Your task to perform on an android device: show emergency info Image 0: 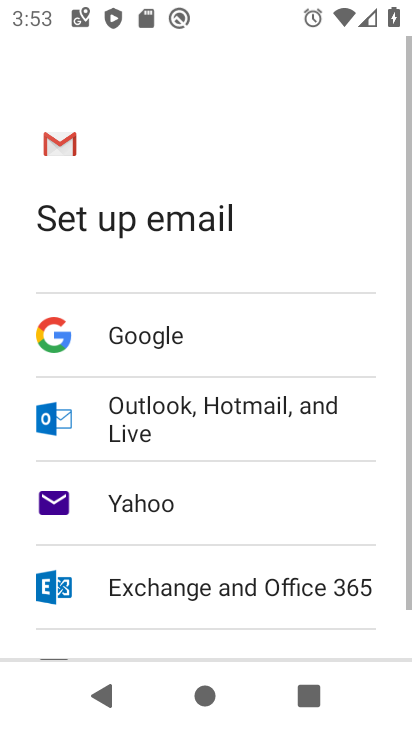
Step 0: press home button
Your task to perform on an android device: show emergency info Image 1: 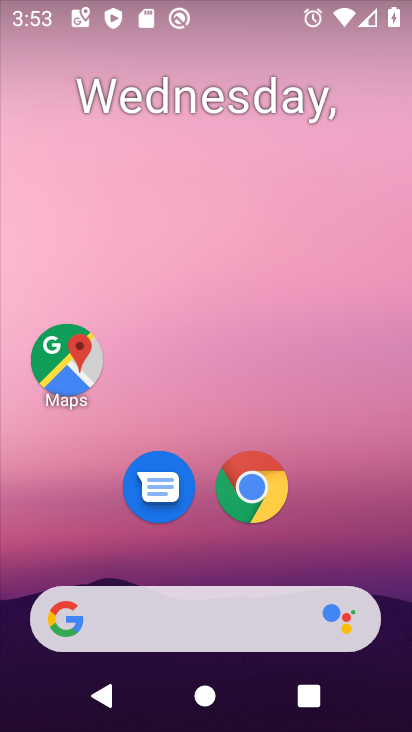
Step 1: drag from (381, 553) to (365, 233)
Your task to perform on an android device: show emergency info Image 2: 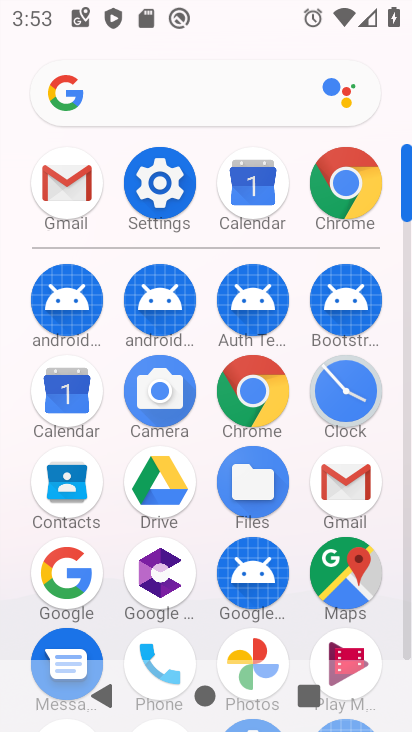
Step 2: click (174, 196)
Your task to perform on an android device: show emergency info Image 3: 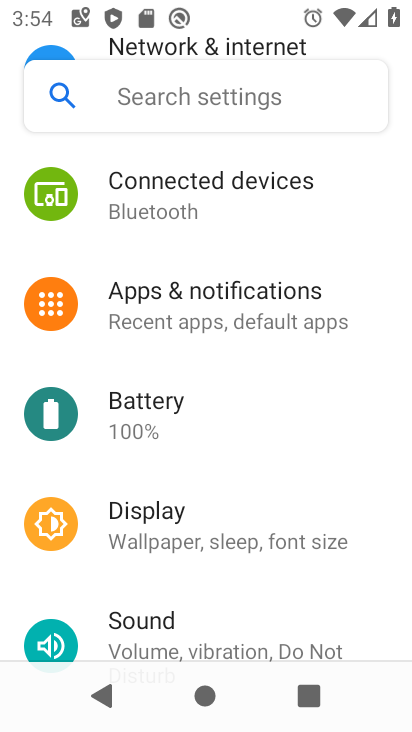
Step 3: drag from (349, 229) to (350, 312)
Your task to perform on an android device: show emergency info Image 4: 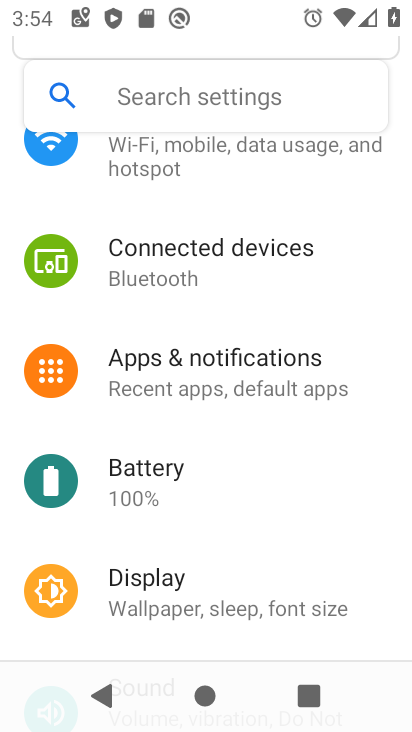
Step 4: drag from (361, 221) to (358, 301)
Your task to perform on an android device: show emergency info Image 5: 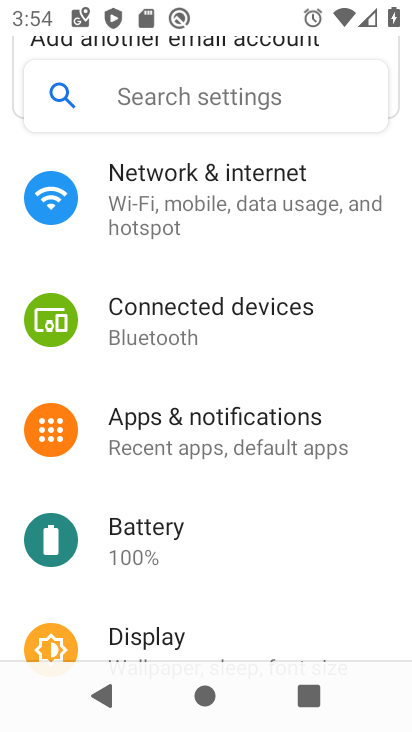
Step 5: drag from (353, 245) to (353, 318)
Your task to perform on an android device: show emergency info Image 6: 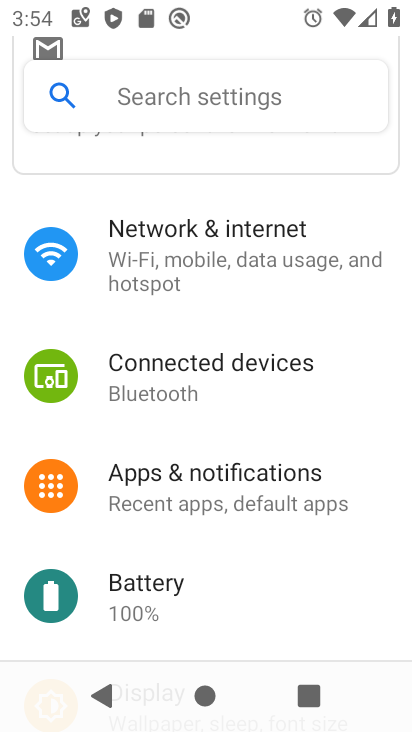
Step 6: drag from (347, 385) to (351, 320)
Your task to perform on an android device: show emergency info Image 7: 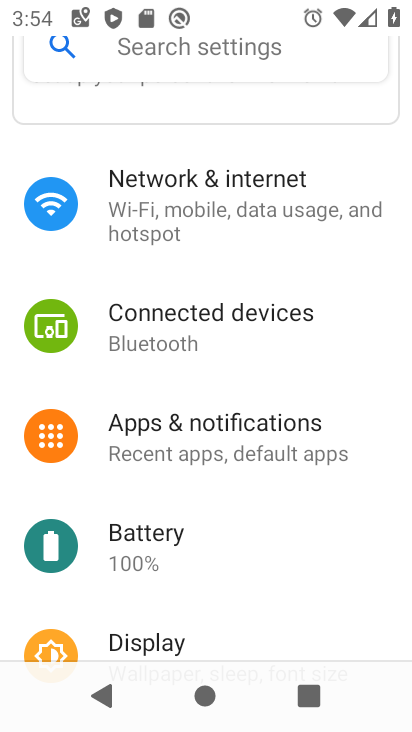
Step 7: drag from (352, 384) to (359, 307)
Your task to perform on an android device: show emergency info Image 8: 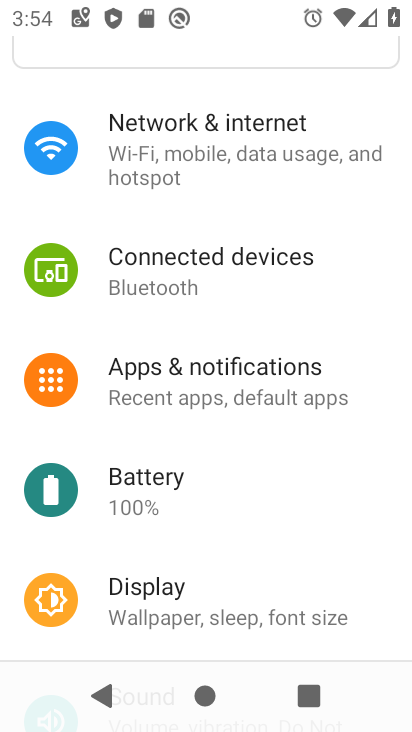
Step 8: drag from (361, 383) to (361, 293)
Your task to perform on an android device: show emergency info Image 9: 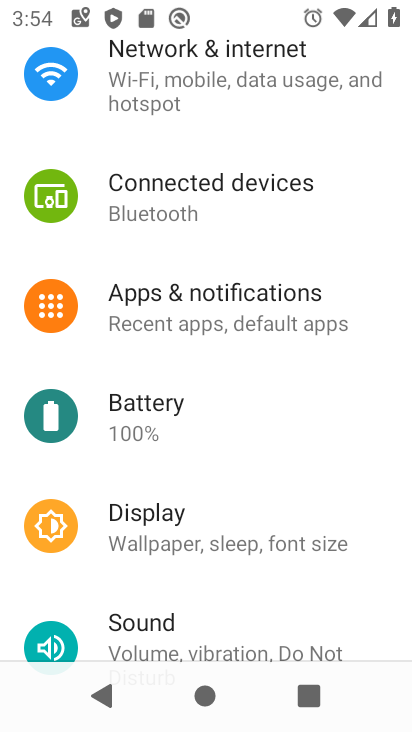
Step 9: drag from (359, 343) to (359, 299)
Your task to perform on an android device: show emergency info Image 10: 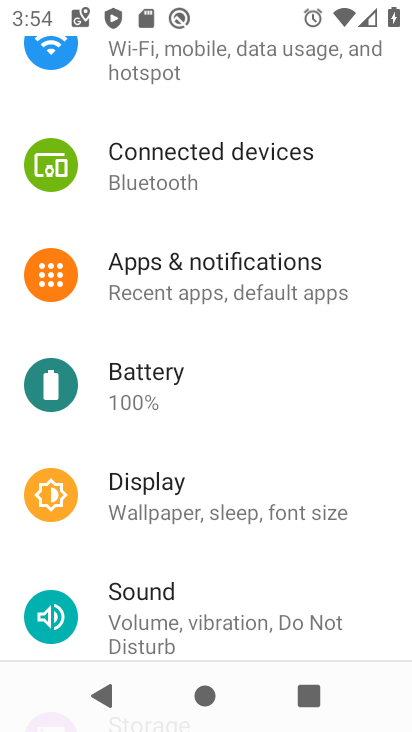
Step 10: drag from (363, 380) to (370, 290)
Your task to perform on an android device: show emergency info Image 11: 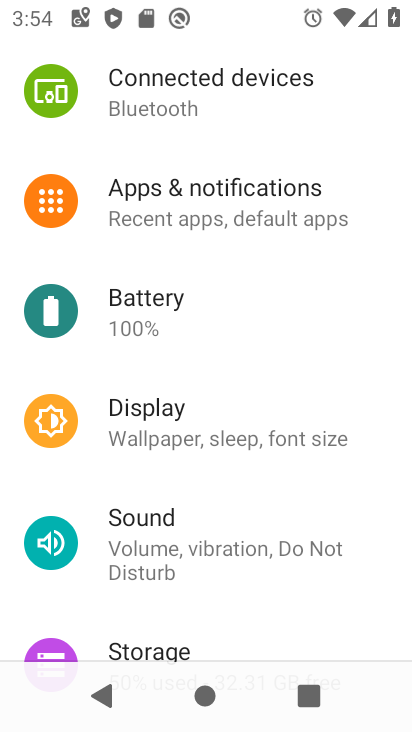
Step 11: drag from (372, 363) to (374, 286)
Your task to perform on an android device: show emergency info Image 12: 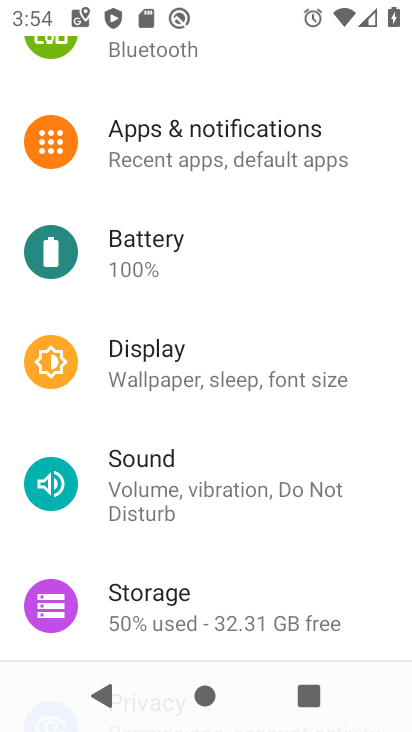
Step 12: drag from (370, 378) to (368, 292)
Your task to perform on an android device: show emergency info Image 13: 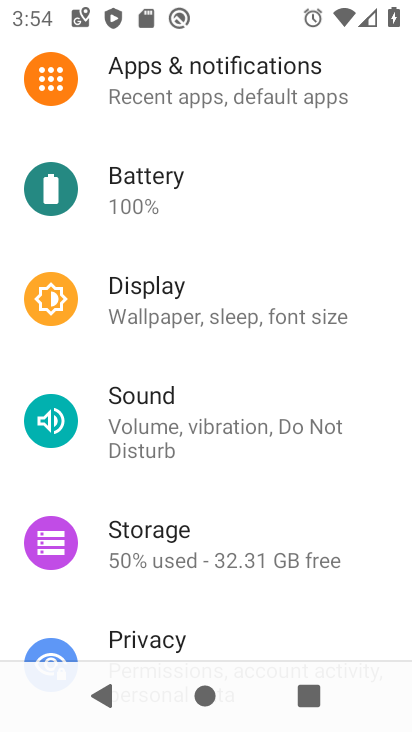
Step 13: drag from (374, 395) to (376, 298)
Your task to perform on an android device: show emergency info Image 14: 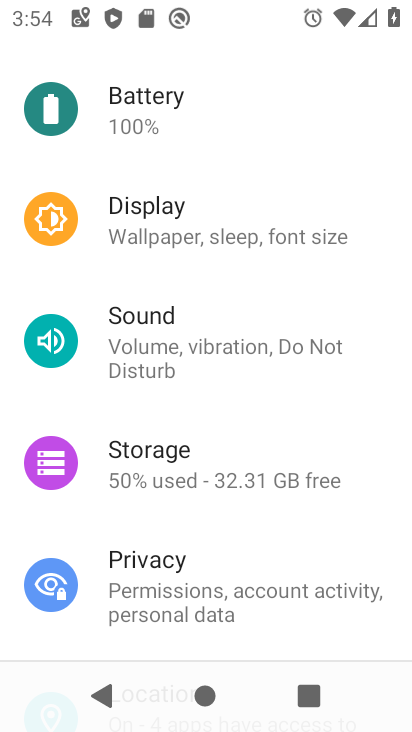
Step 14: drag from (368, 389) to (367, 303)
Your task to perform on an android device: show emergency info Image 15: 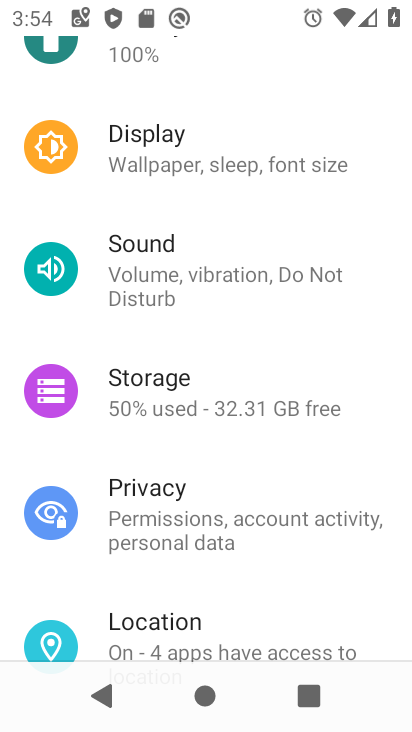
Step 15: drag from (370, 405) to (375, 309)
Your task to perform on an android device: show emergency info Image 16: 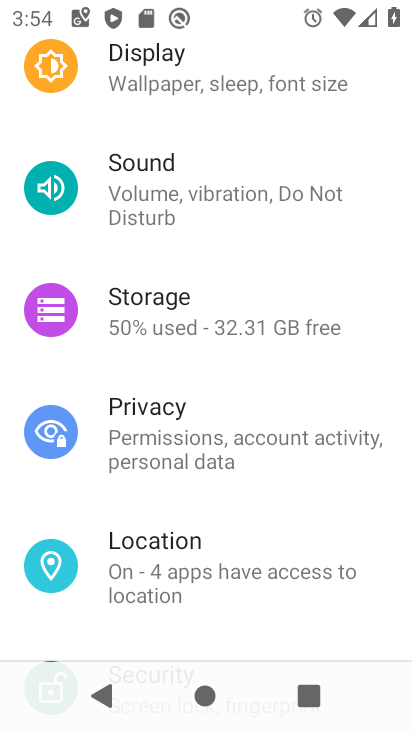
Step 16: drag from (357, 450) to (367, 341)
Your task to perform on an android device: show emergency info Image 17: 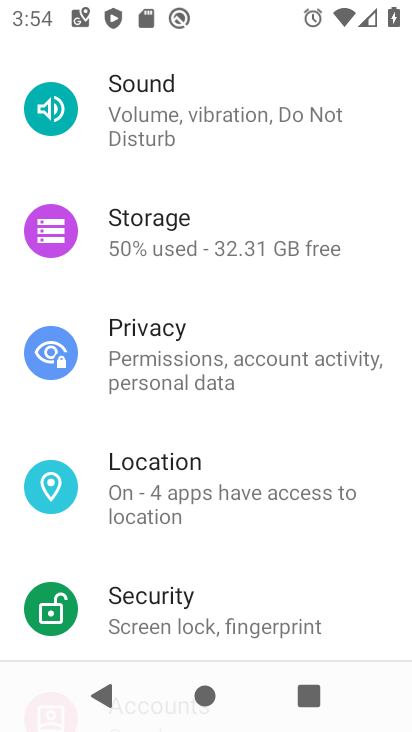
Step 17: drag from (368, 472) to (364, 345)
Your task to perform on an android device: show emergency info Image 18: 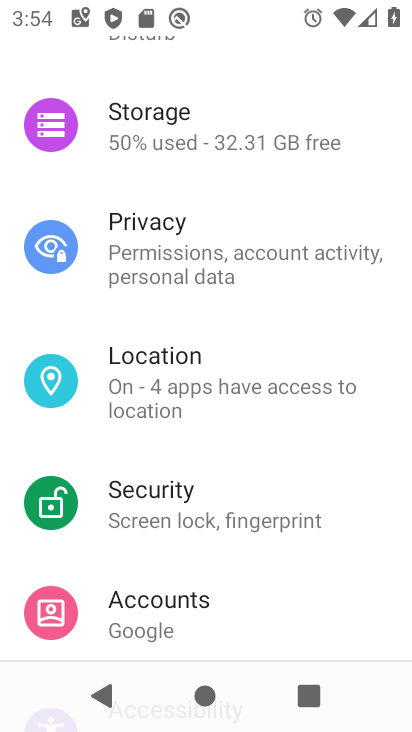
Step 18: drag from (347, 562) to (347, 409)
Your task to perform on an android device: show emergency info Image 19: 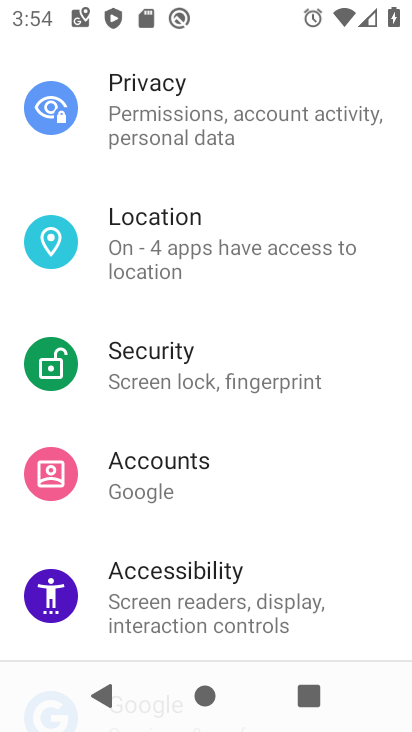
Step 19: drag from (348, 596) to (349, 467)
Your task to perform on an android device: show emergency info Image 20: 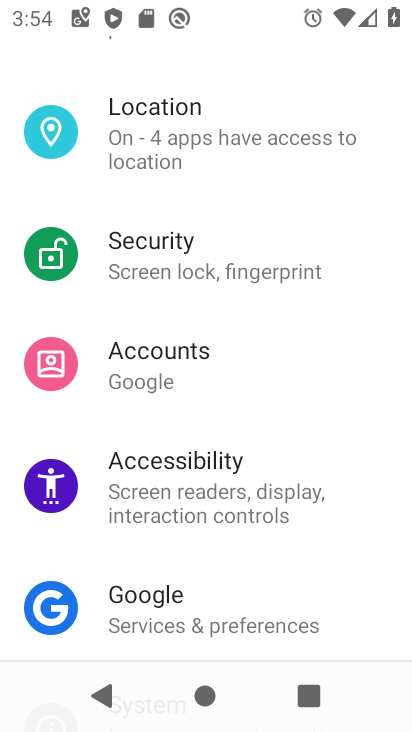
Step 20: drag from (321, 596) to (324, 473)
Your task to perform on an android device: show emergency info Image 21: 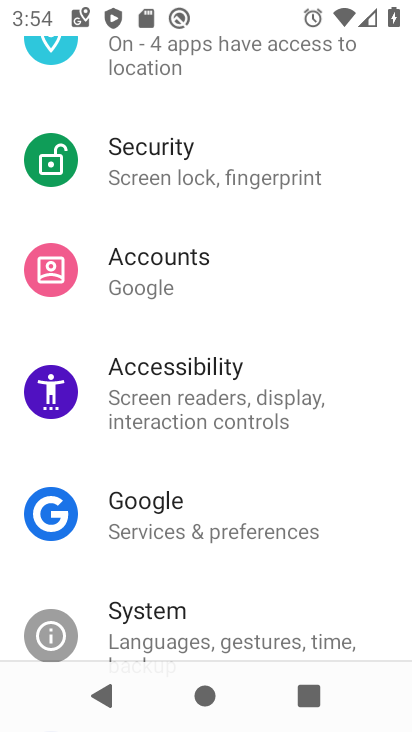
Step 21: drag from (351, 559) to (358, 390)
Your task to perform on an android device: show emergency info Image 22: 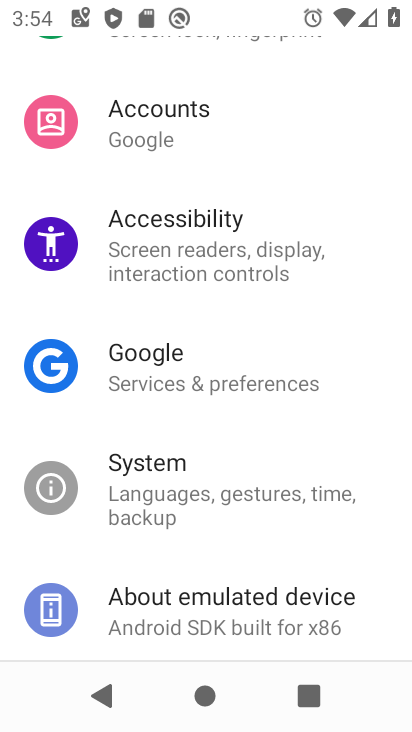
Step 22: drag from (363, 581) to (357, 408)
Your task to perform on an android device: show emergency info Image 23: 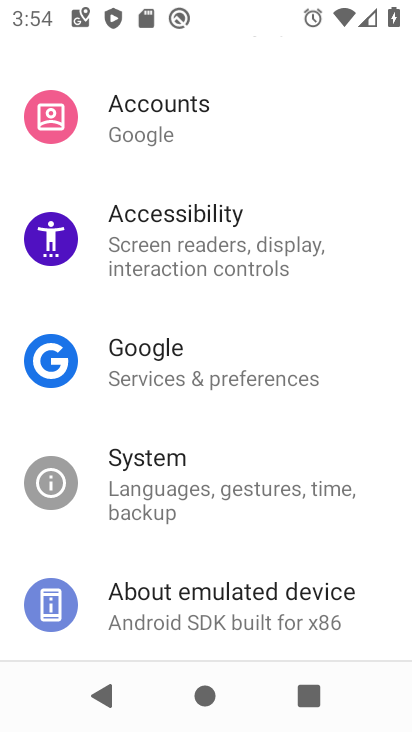
Step 23: click (299, 606)
Your task to perform on an android device: show emergency info Image 24: 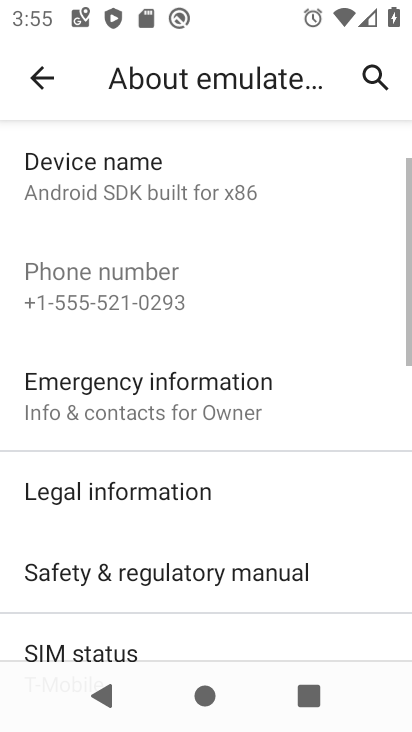
Step 24: click (217, 378)
Your task to perform on an android device: show emergency info Image 25: 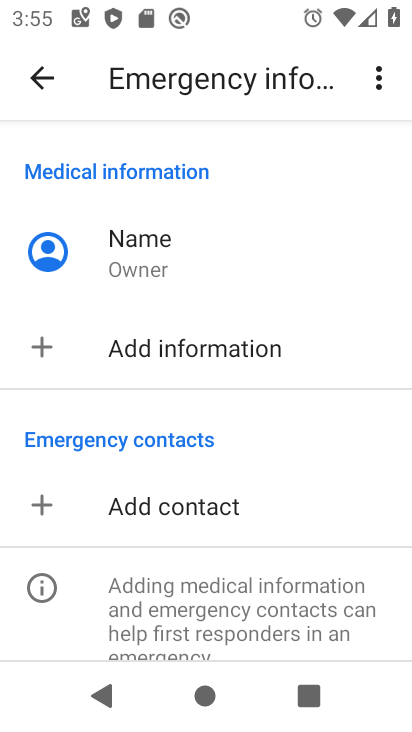
Step 25: task complete